Your task to perform on an android device: Open settings Image 0: 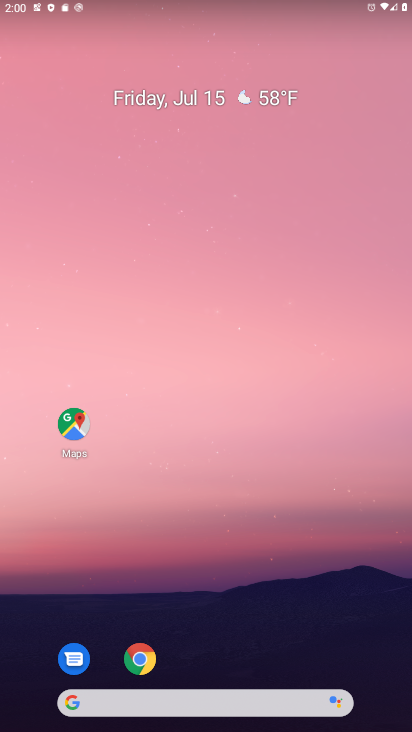
Step 0: drag from (232, 725) to (224, 136)
Your task to perform on an android device: Open settings Image 1: 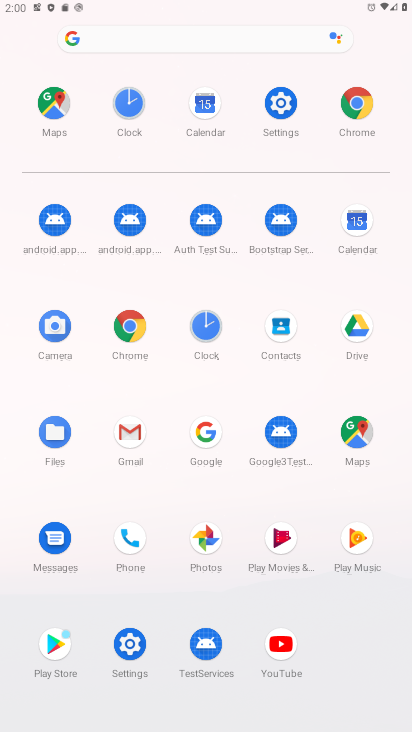
Step 1: click (284, 94)
Your task to perform on an android device: Open settings Image 2: 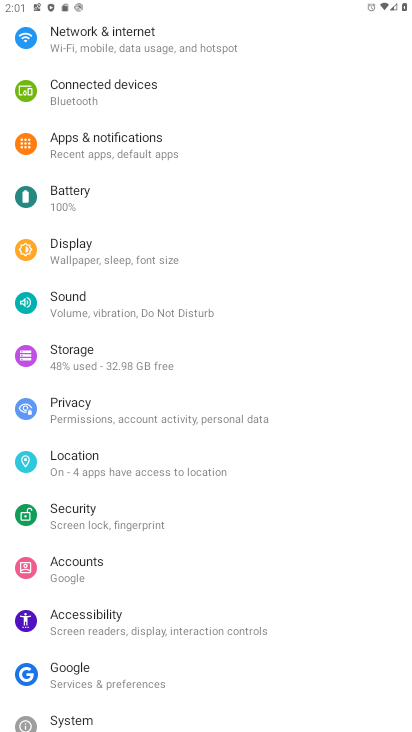
Step 2: task complete